Your task to perform on an android device: Search for Italian restaurants on Maps Image 0: 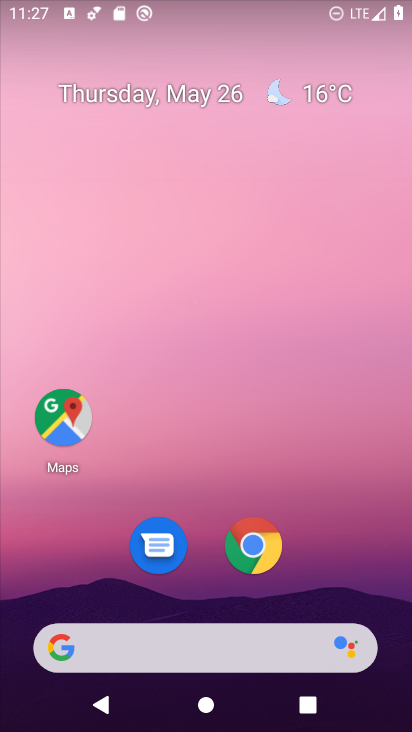
Step 0: click (72, 424)
Your task to perform on an android device: Search for Italian restaurants on Maps Image 1: 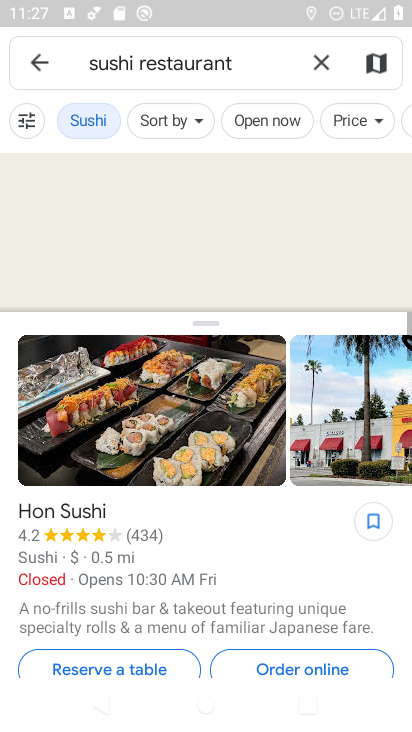
Step 1: click (320, 71)
Your task to perform on an android device: Search for Italian restaurants on Maps Image 2: 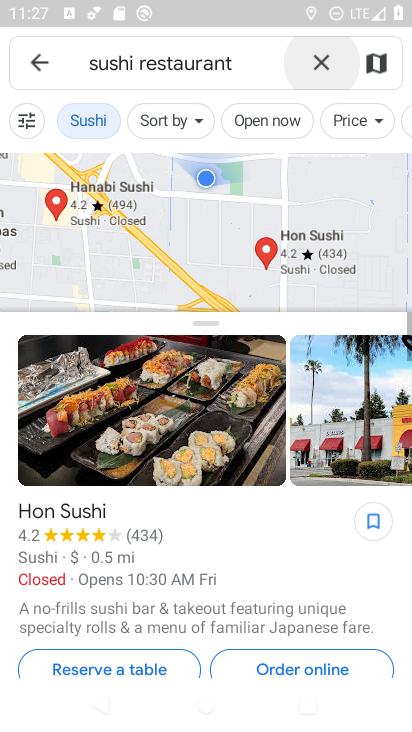
Step 2: click (323, 71)
Your task to perform on an android device: Search for Italian restaurants on Maps Image 3: 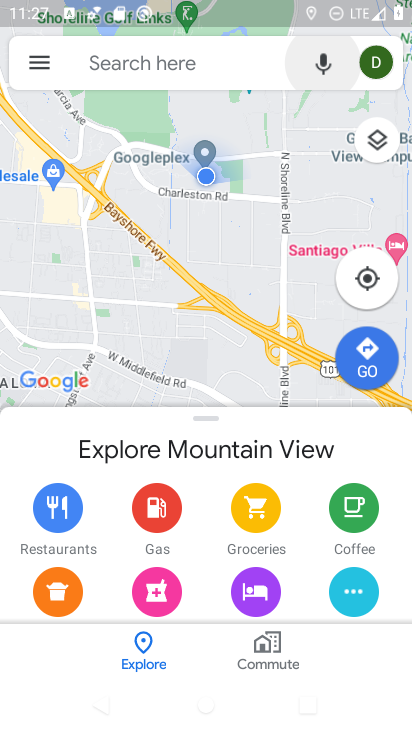
Step 3: click (219, 57)
Your task to perform on an android device: Search for Italian restaurants on Maps Image 4: 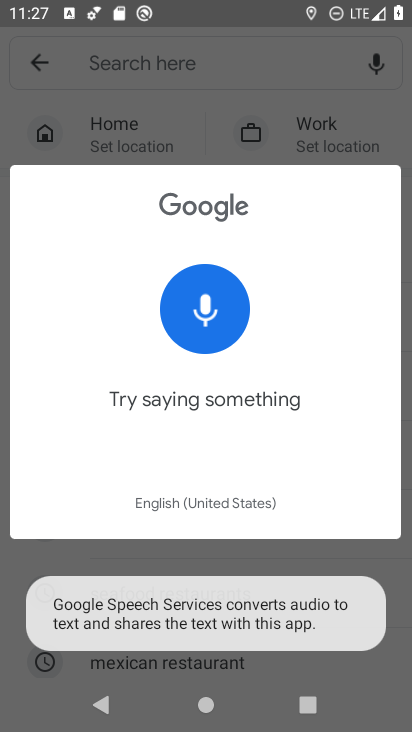
Step 4: click (204, 53)
Your task to perform on an android device: Search for Italian restaurants on Maps Image 5: 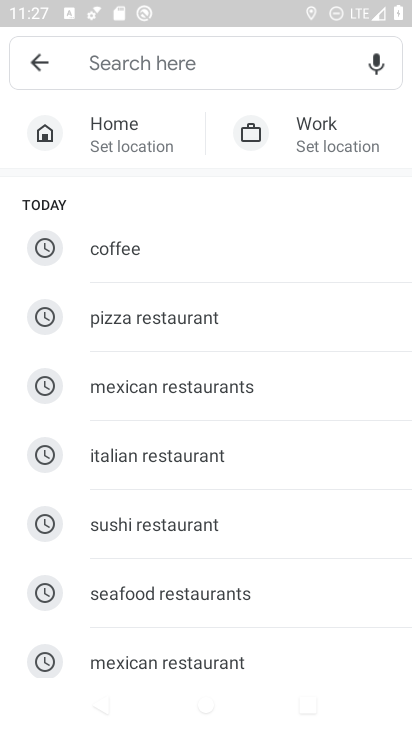
Step 5: click (154, 464)
Your task to perform on an android device: Search for Italian restaurants on Maps Image 6: 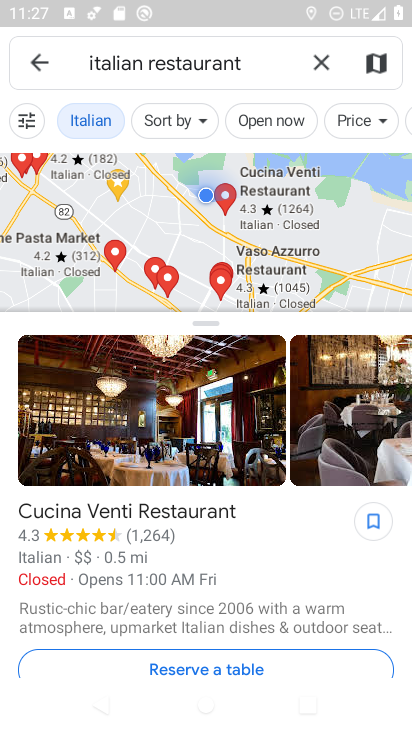
Step 6: task complete